Your task to perform on an android device: When is my next appointment? Image 0: 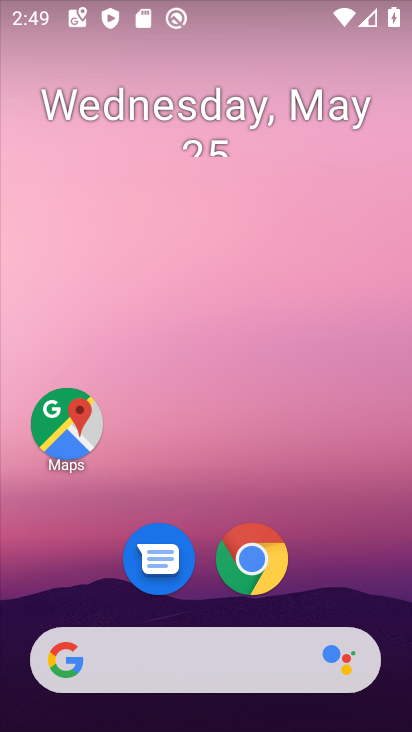
Step 0: press home button
Your task to perform on an android device: When is my next appointment? Image 1: 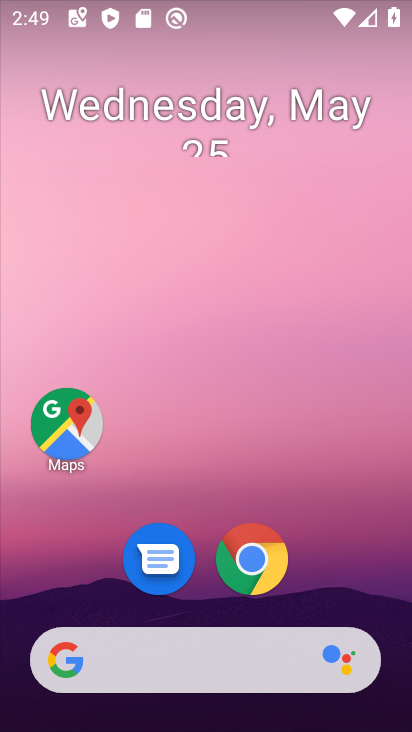
Step 1: drag from (203, 599) to (192, 76)
Your task to perform on an android device: When is my next appointment? Image 2: 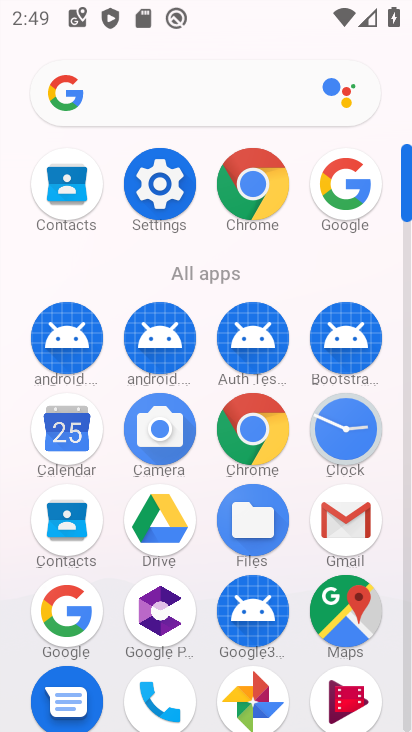
Step 2: drag from (204, 575) to (300, 47)
Your task to perform on an android device: When is my next appointment? Image 3: 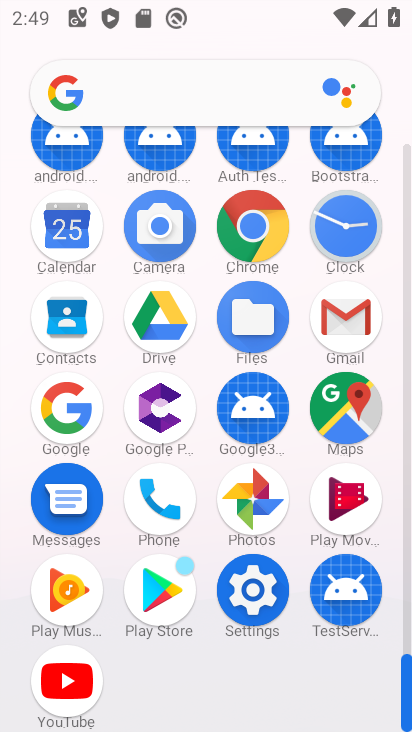
Step 3: click (64, 226)
Your task to perform on an android device: When is my next appointment? Image 4: 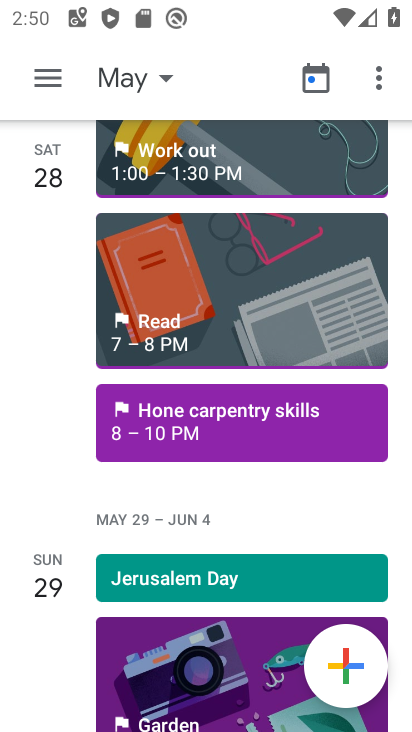
Step 4: task complete